Your task to perform on an android device: When is my next appointment? Image 0: 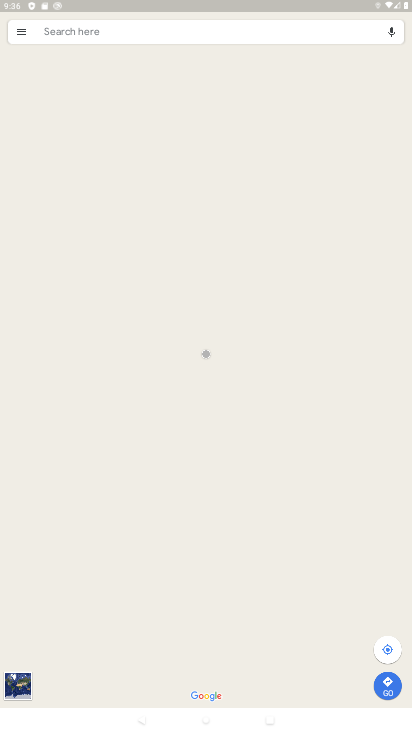
Step 0: press home button
Your task to perform on an android device: When is my next appointment? Image 1: 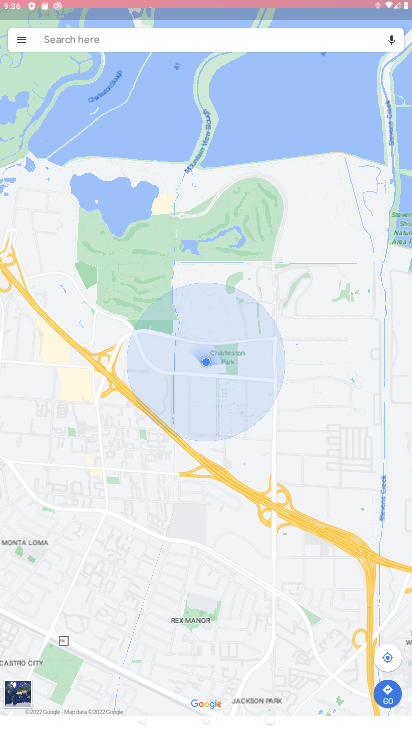
Step 1: press home button
Your task to perform on an android device: When is my next appointment? Image 2: 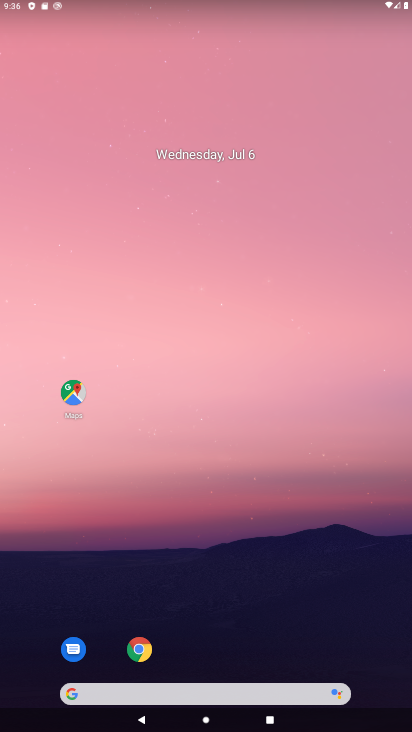
Step 2: drag from (375, 659) to (284, 69)
Your task to perform on an android device: When is my next appointment? Image 3: 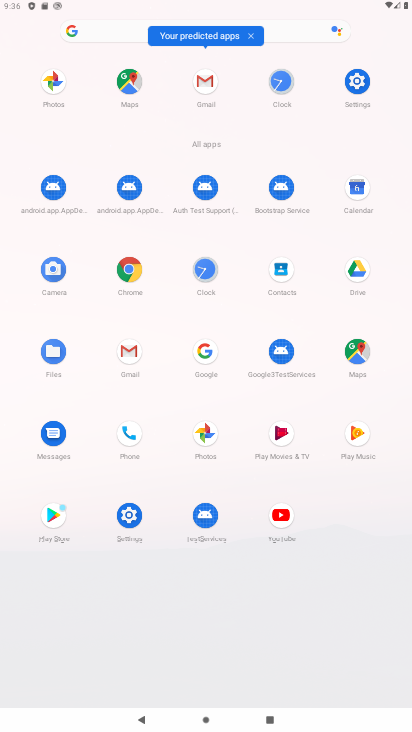
Step 3: click (353, 192)
Your task to perform on an android device: When is my next appointment? Image 4: 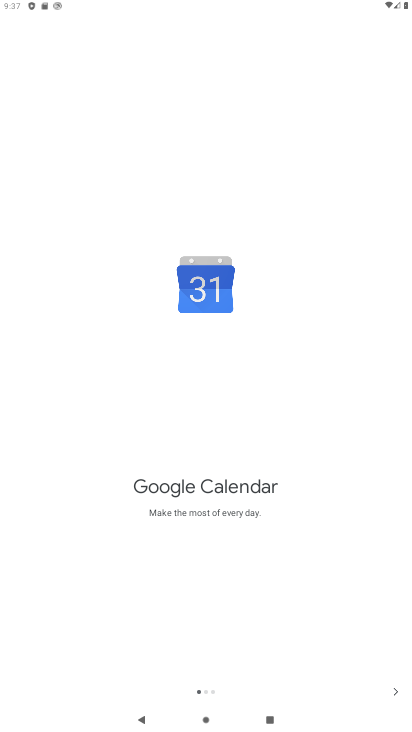
Step 4: click (398, 697)
Your task to perform on an android device: When is my next appointment? Image 5: 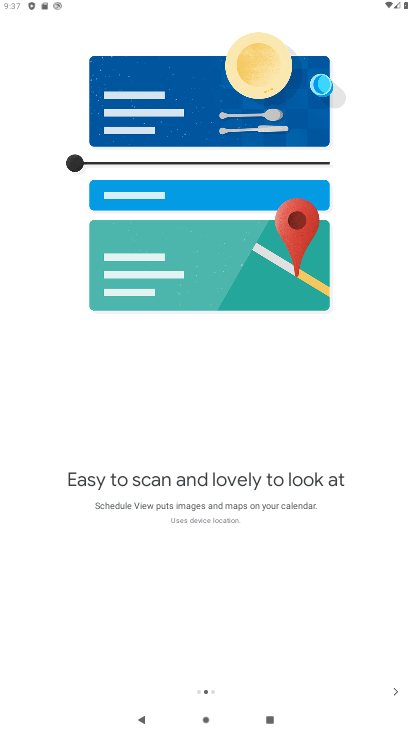
Step 5: click (398, 699)
Your task to perform on an android device: When is my next appointment? Image 6: 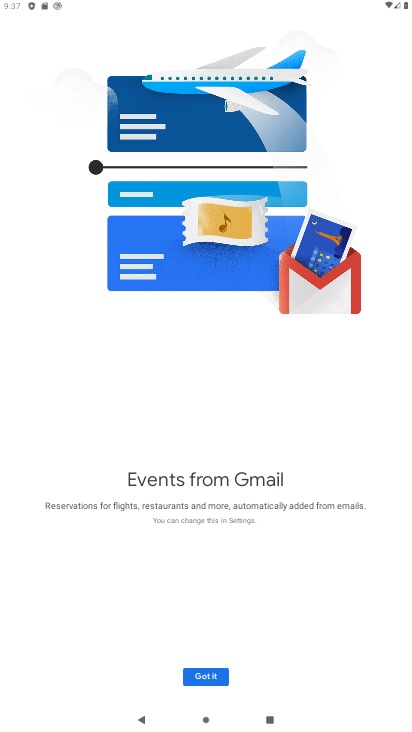
Step 6: click (398, 699)
Your task to perform on an android device: When is my next appointment? Image 7: 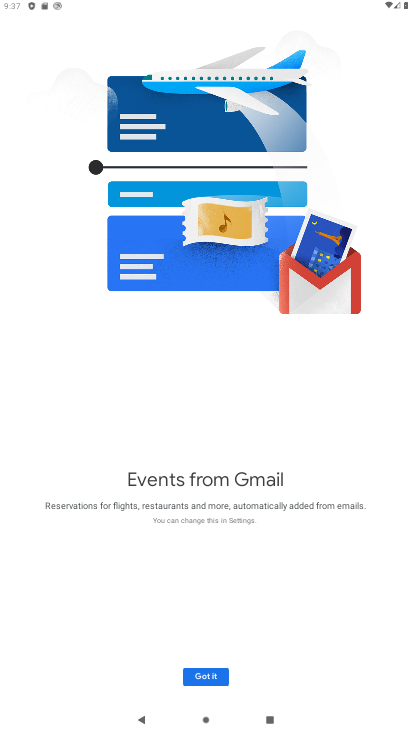
Step 7: click (214, 673)
Your task to perform on an android device: When is my next appointment? Image 8: 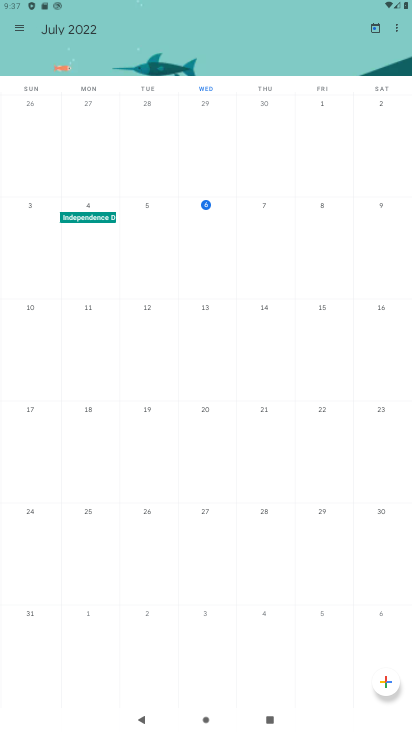
Step 8: click (19, 24)
Your task to perform on an android device: When is my next appointment? Image 9: 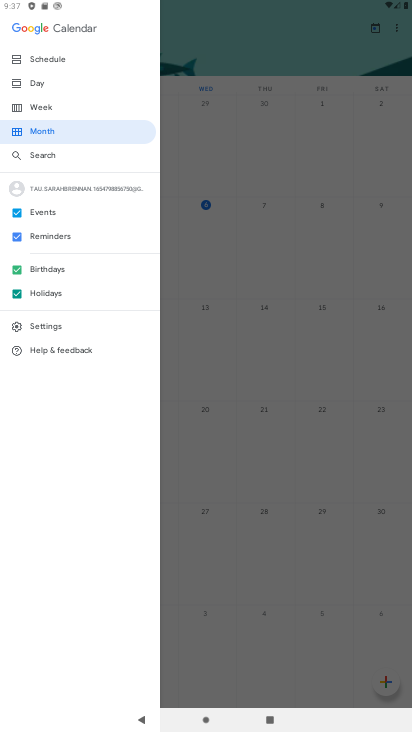
Step 9: click (15, 293)
Your task to perform on an android device: When is my next appointment? Image 10: 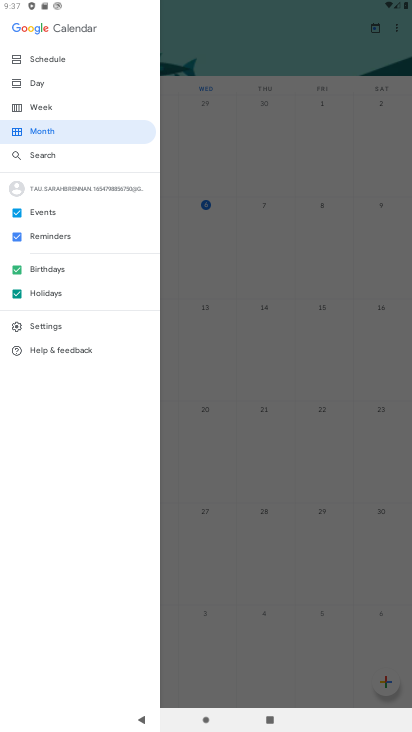
Step 10: click (15, 271)
Your task to perform on an android device: When is my next appointment? Image 11: 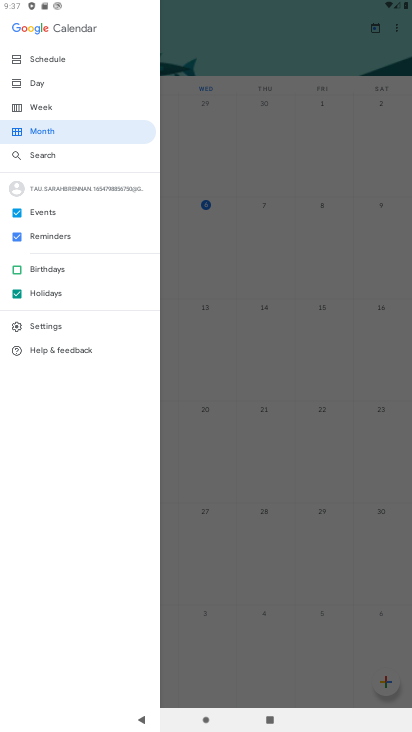
Step 11: click (13, 237)
Your task to perform on an android device: When is my next appointment? Image 12: 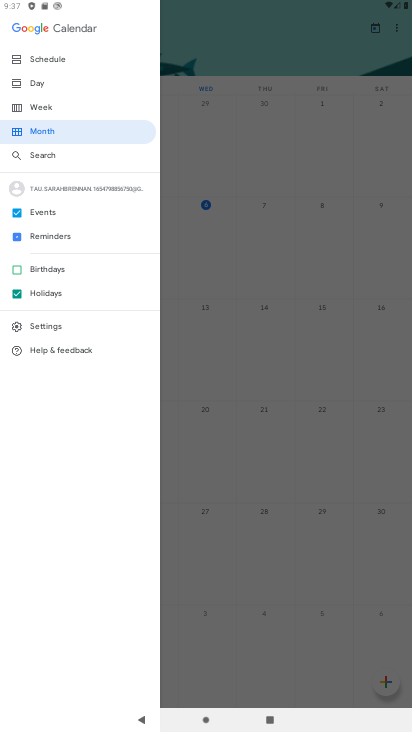
Step 12: click (16, 210)
Your task to perform on an android device: When is my next appointment? Image 13: 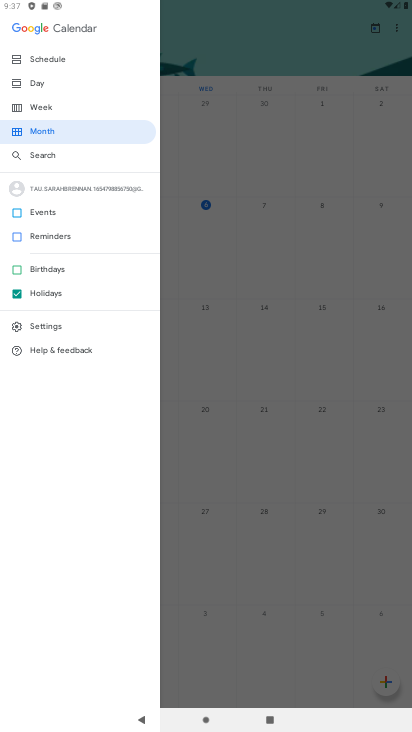
Step 13: click (14, 292)
Your task to perform on an android device: When is my next appointment? Image 14: 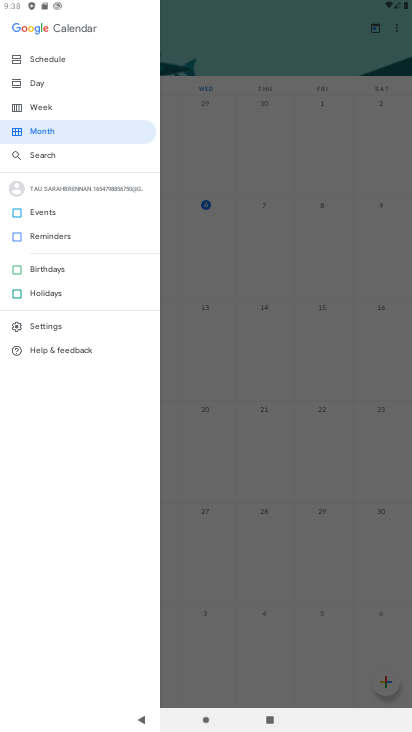
Step 14: click (51, 54)
Your task to perform on an android device: When is my next appointment? Image 15: 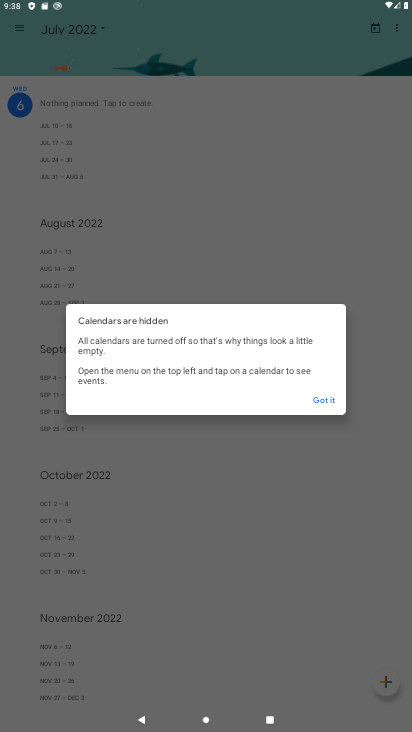
Step 15: click (330, 401)
Your task to perform on an android device: When is my next appointment? Image 16: 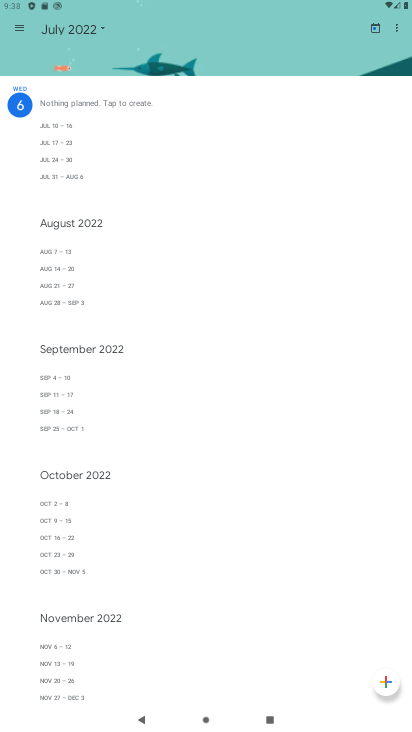
Step 16: task complete